Your task to perform on an android device: Open Yahoo.com Image 0: 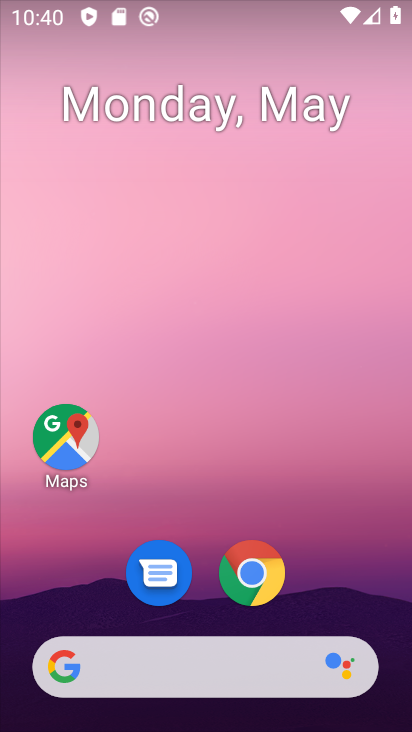
Step 0: click (257, 581)
Your task to perform on an android device: Open Yahoo.com Image 1: 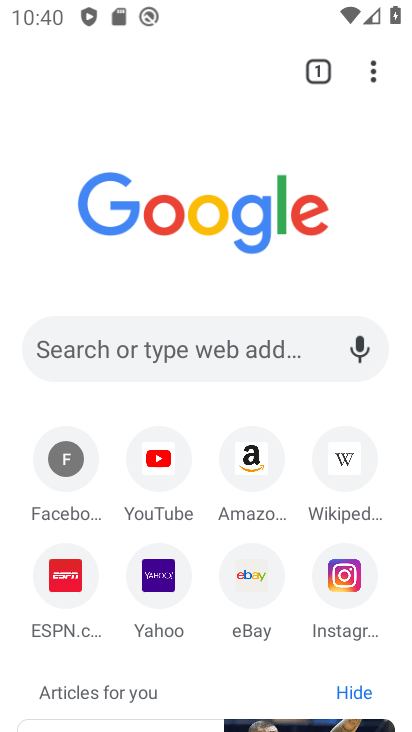
Step 1: click (157, 584)
Your task to perform on an android device: Open Yahoo.com Image 2: 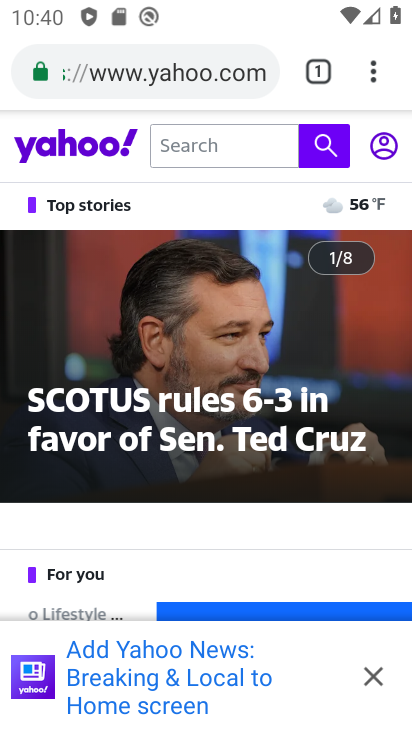
Step 2: task complete